Your task to perform on an android device: Open accessibility settings Image 0: 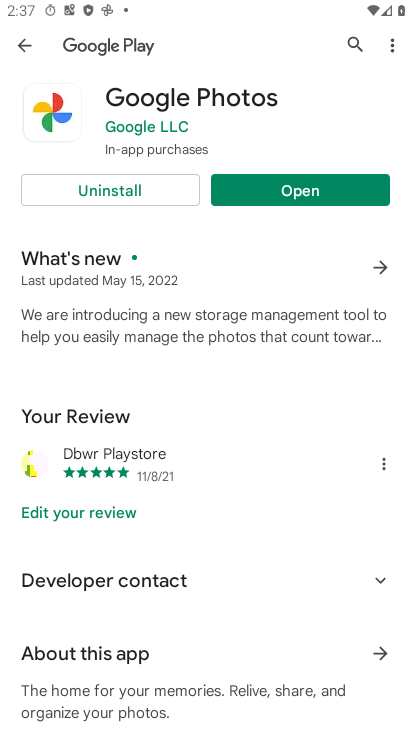
Step 0: press home button
Your task to perform on an android device: Open accessibility settings Image 1: 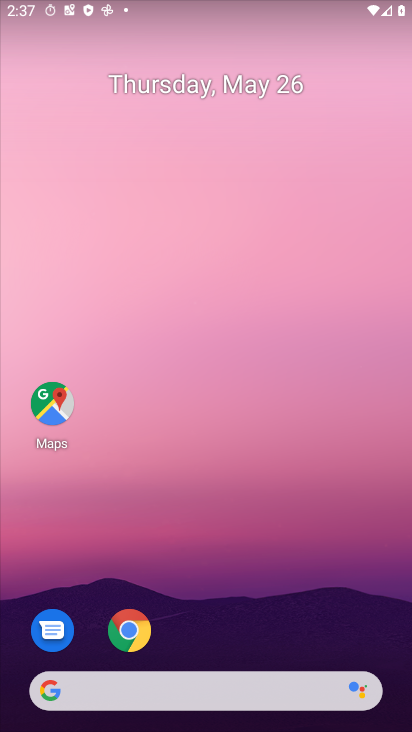
Step 1: drag from (222, 606) to (233, 302)
Your task to perform on an android device: Open accessibility settings Image 2: 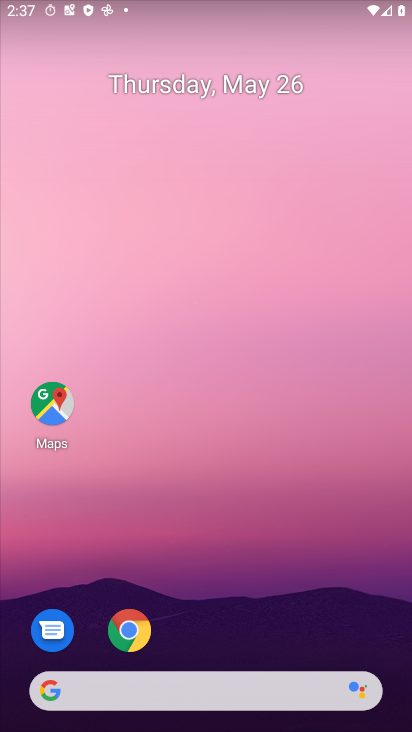
Step 2: drag from (237, 564) to (190, 10)
Your task to perform on an android device: Open accessibility settings Image 3: 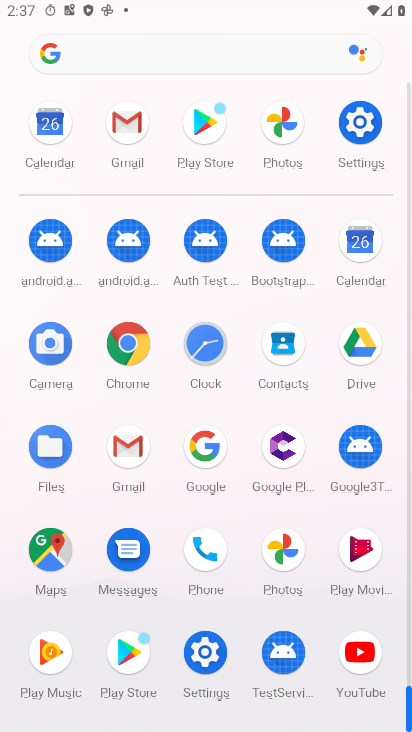
Step 3: click (347, 121)
Your task to perform on an android device: Open accessibility settings Image 4: 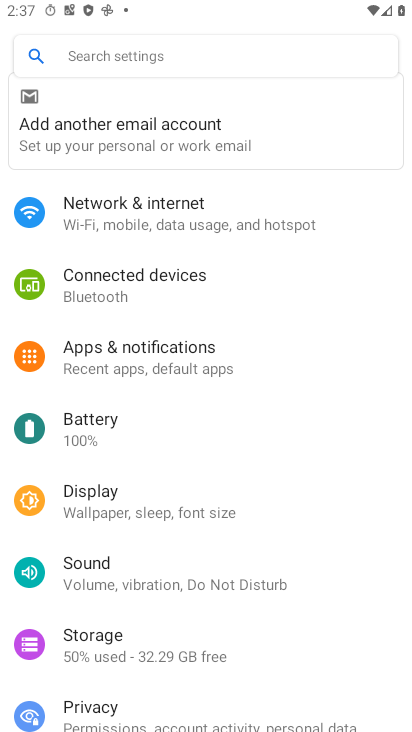
Step 4: drag from (216, 597) to (169, 161)
Your task to perform on an android device: Open accessibility settings Image 5: 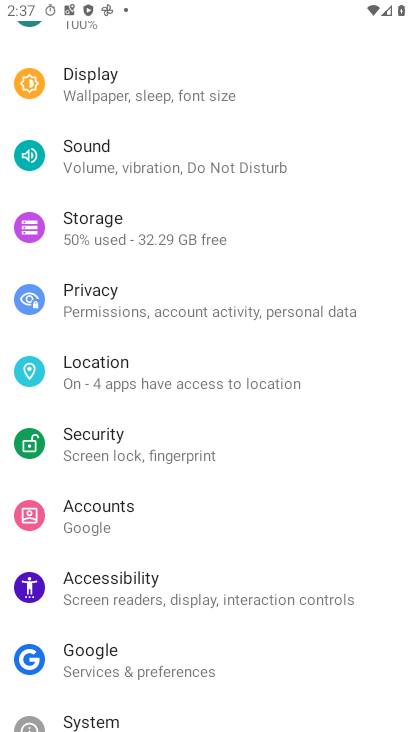
Step 5: click (151, 593)
Your task to perform on an android device: Open accessibility settings Image 6: 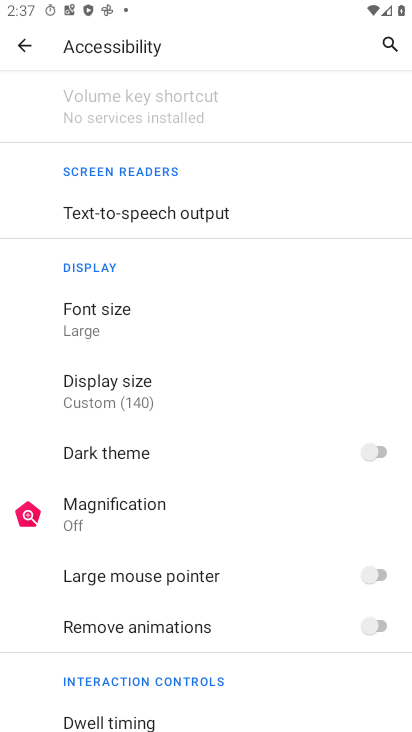
Step 6: task complete